Your task to perform on an android device: allow notifications from all sites in the chrome app Image 0: 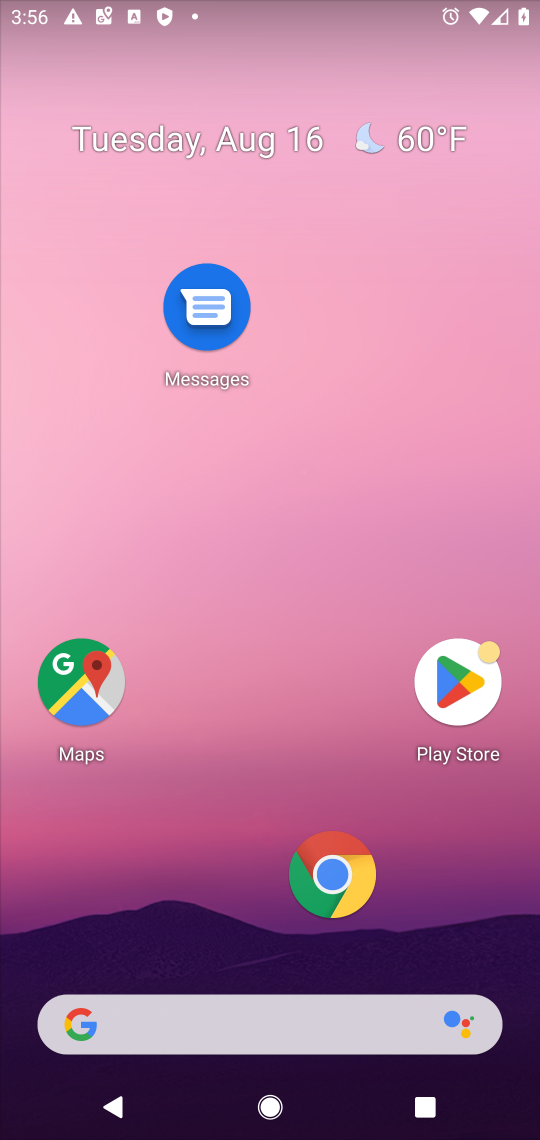
Step 0: click (323, 878)
Your task to perform on an android device: allow notifications from all sites in the chrome app Image 1: 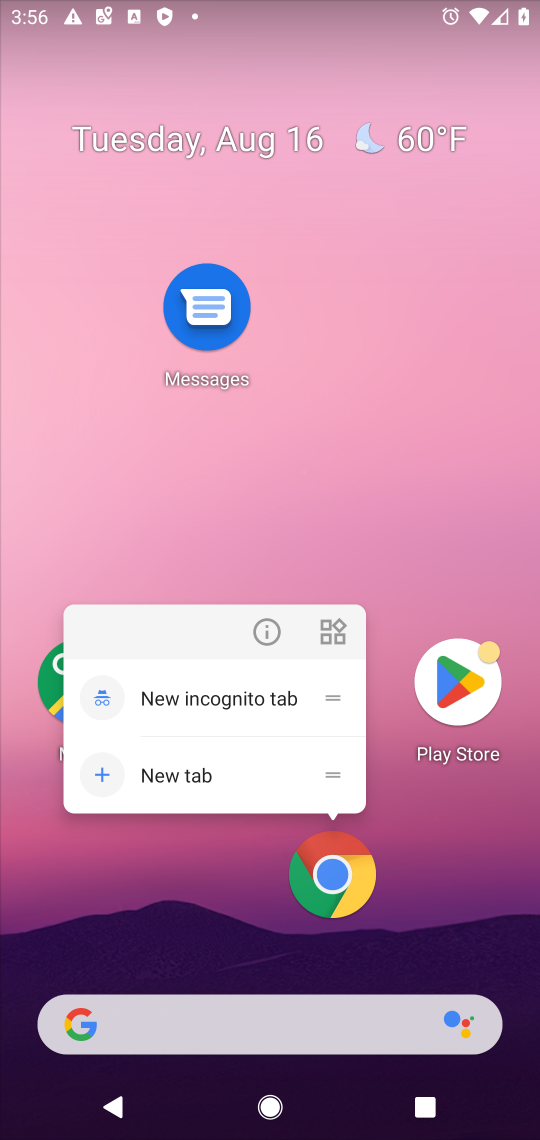
Step 1: click (259, 631)
Your task to perform on an android device: allow notifications from all sites in the chrome app Image 2: 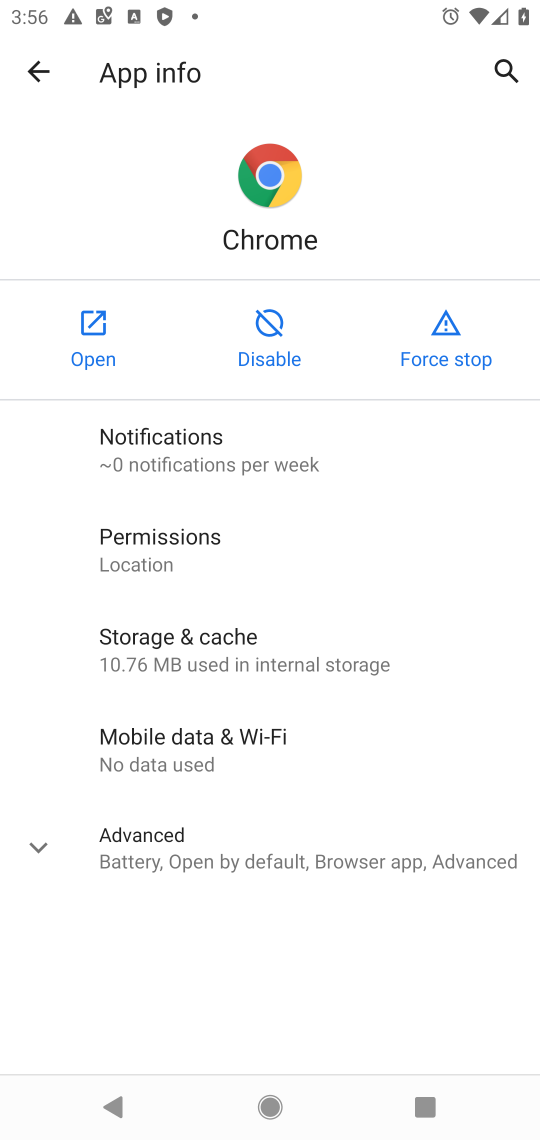
Step 2: click (224, 432)
Your task to perform on an android device: allow notifications from all sites in the chrome app Image 3: 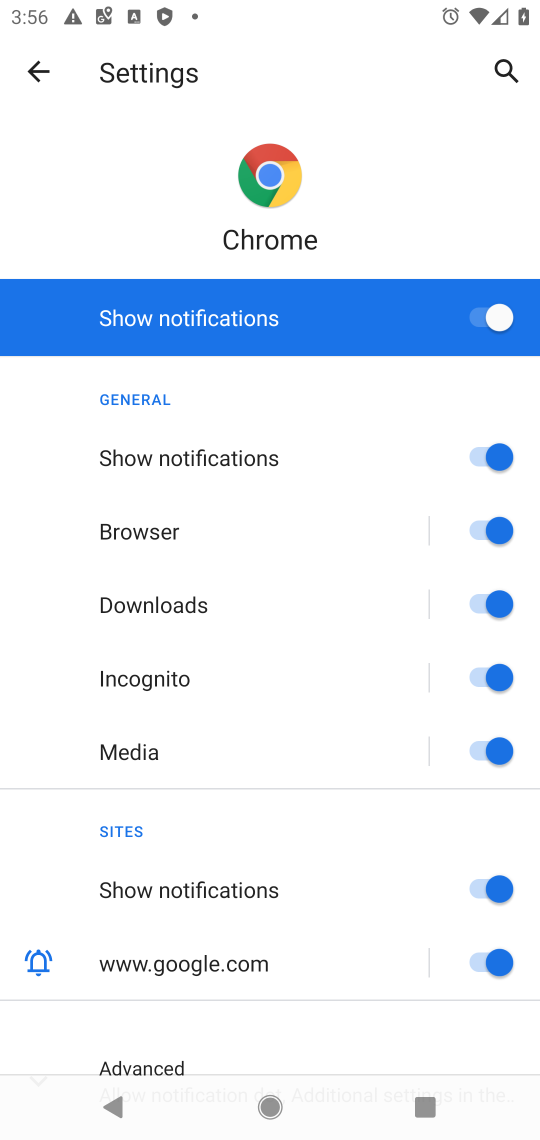
Step 3: task complete